Your task to perform on an android device: delete browsing data in the chrome app Image 0: 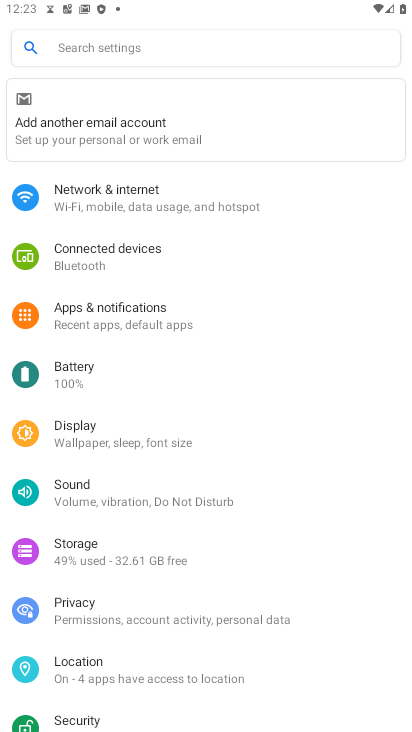
Step 0: press back button
Your task to perform on an android device: delete browsing data in the chrome app Image 1: 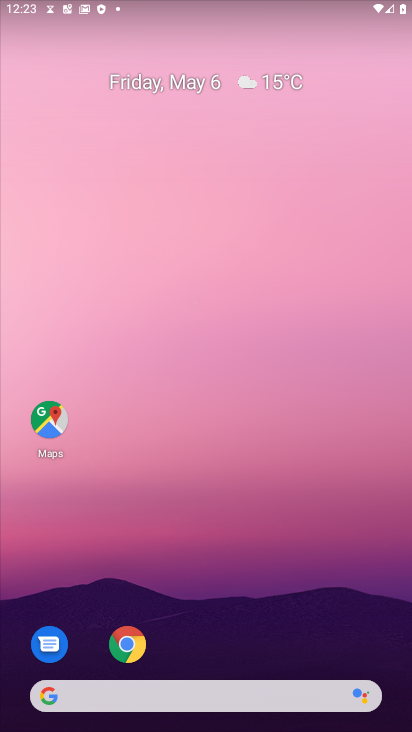
Step 1: drag from (234, 571) to (180, 5)
Your task to perform on an android device: delete browsing data in the chrome app Image 2: 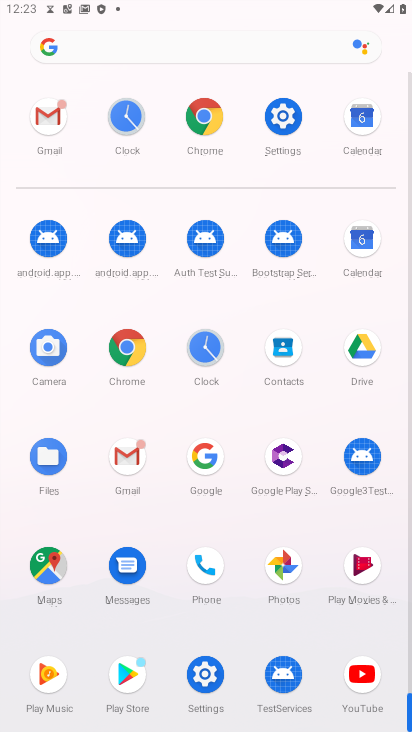
Step 2: click (125, 345)
Your task to perform on an android device: delete browsing data in the chrome app Image 3: 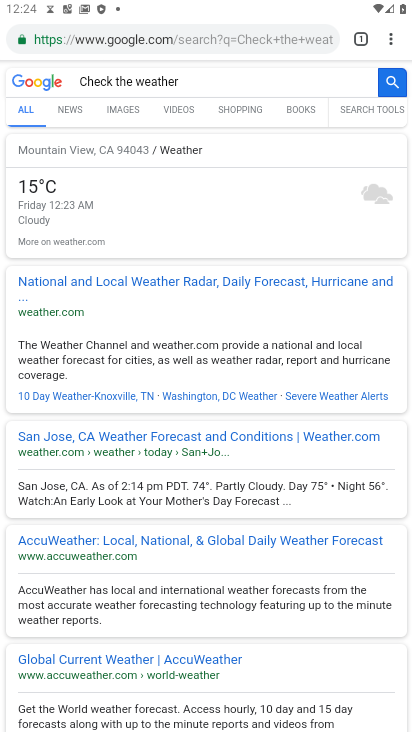
Step 3: drag from (385, 37) to (255, 425)
Your task to perform on an android device: delete browsing data in the chrome app Image 4: 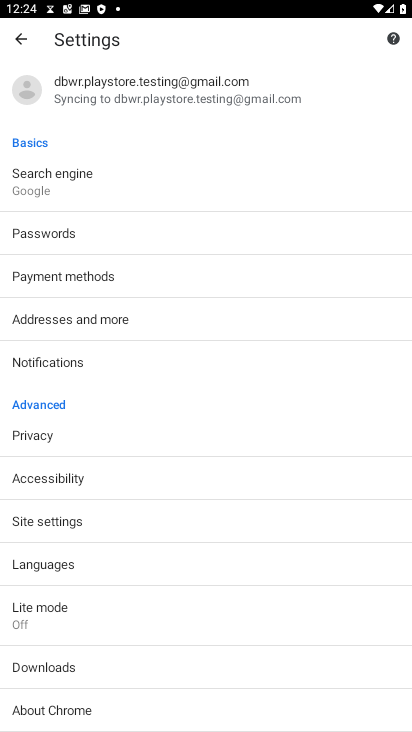
Step 4: drag from (247, 562) to (274, 129)
Your task to perform on an android device: delete browsing data in the chrome app Image 5: 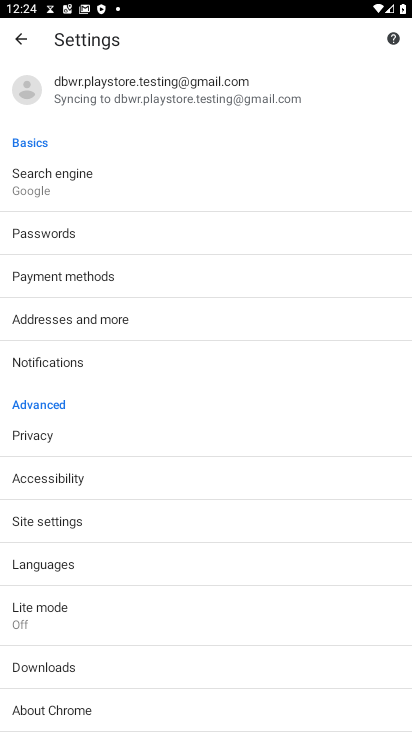
Step 5: click (27, 37)
Your task to perform on an android device: delete browsing data in the chrome app Image 6: 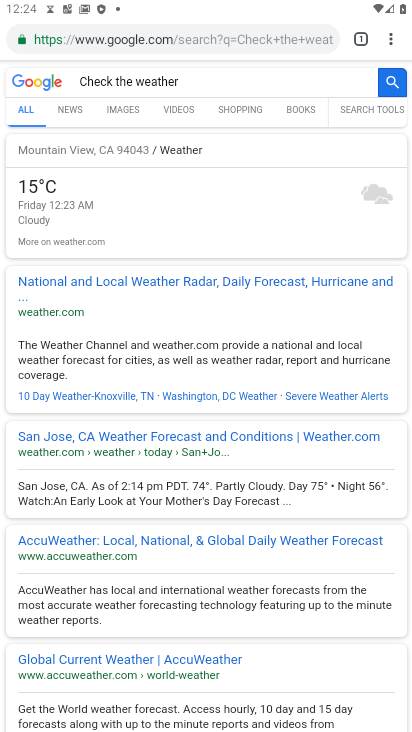
Step 6: drag from (396, 39) to (283, 224)
Your task to perform on an android device: delete browsing data in the chrome app Image 7: 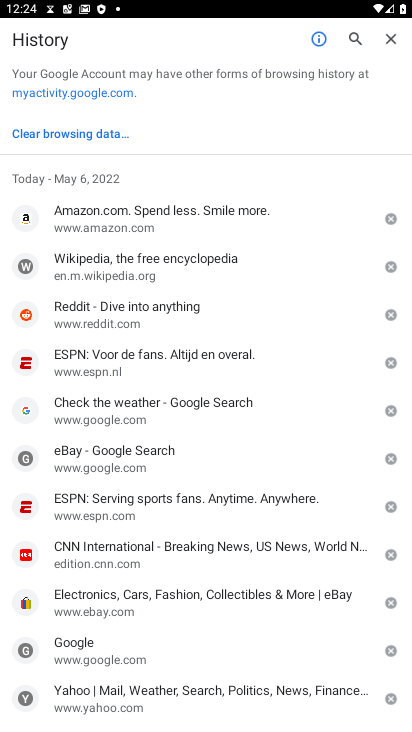
Step 7: click (103, 132)
Your task to perform on an android device: delete browsing data in the chrome app Image 8: 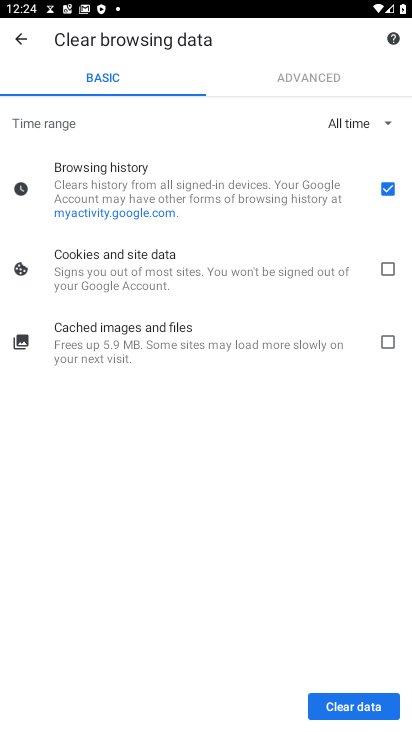
Step 8: click (365, 700)
Your task to perform on an android device: delete browsing data in the chrome app Image 9: 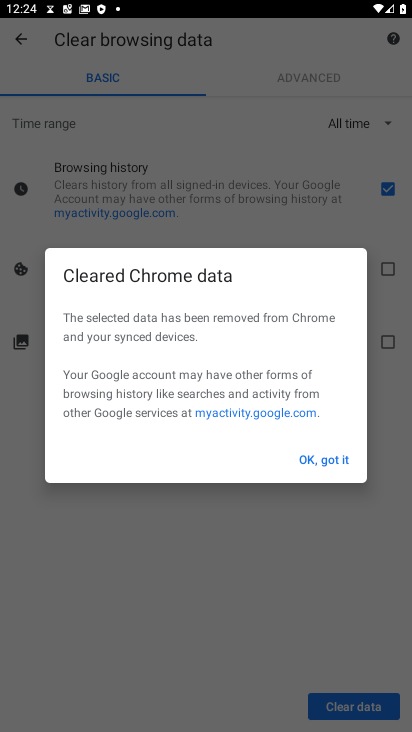
Step 9: click (316, 460)
Your task to perform on an android device: delete browsing data in the chrome app Image 10: 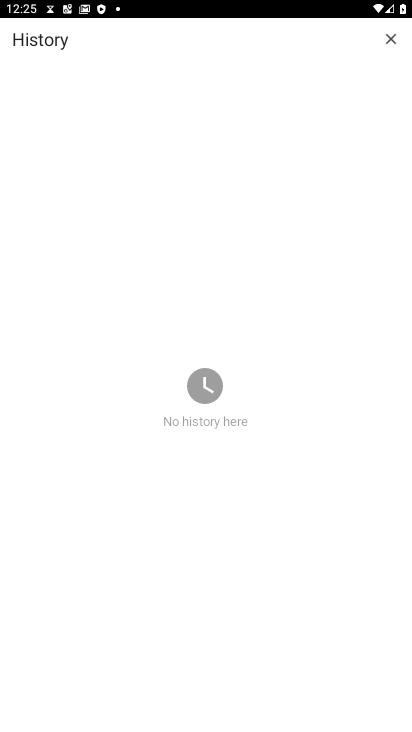
Step 10: task complete